Your task to perform on an android device: Search for the best rated headphones on Amazon Image 0: 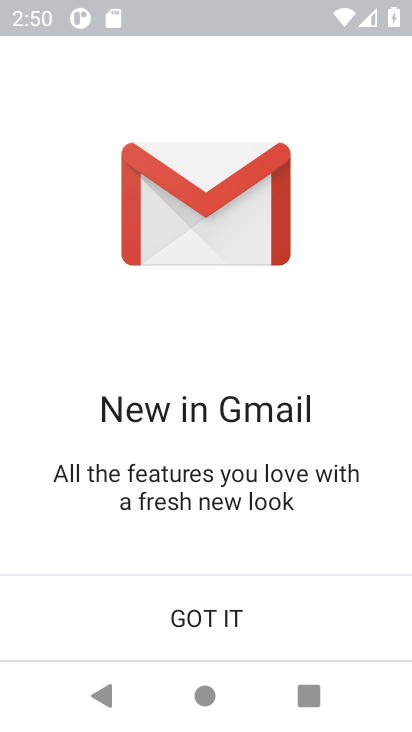
Step 0: press home button
Your task to perform on an android device: Search for the best rated headphones on Amazon Image 1: 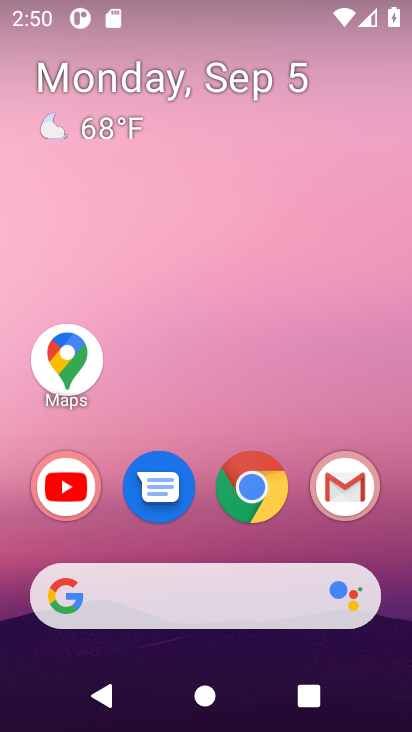
Step 1: click (236, 508)
Your task to perform on an android device: Search for the best rated headphones on Amazon Image 2: 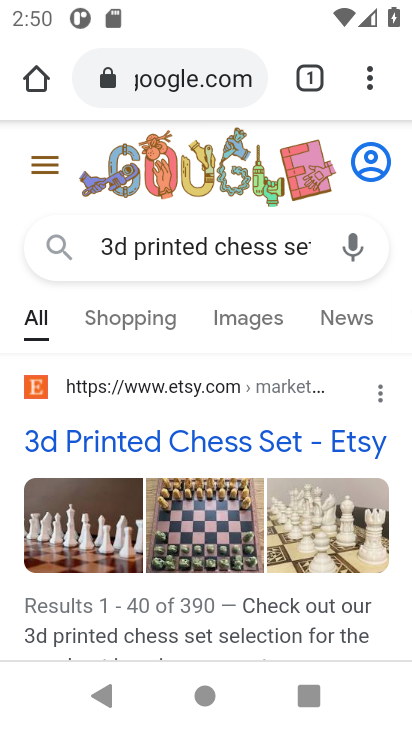
Step 2: click (171, 53)
Your task to perform on an android device: Search for the best rated headphones on Amazon Image 3: 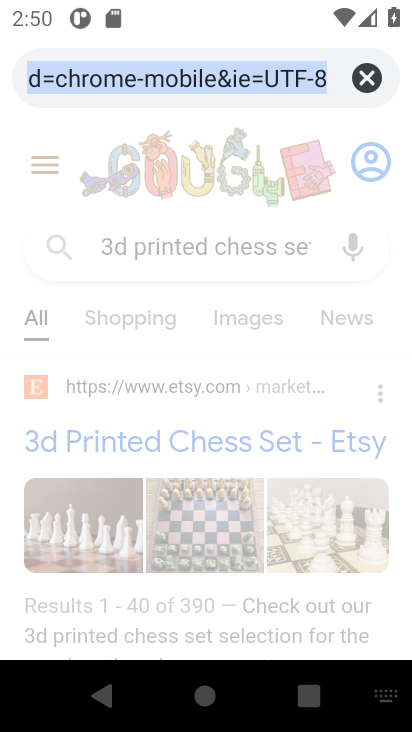
Step 3: click (373, 87)
Your task to perform on an android device: Search for the best rated headphones on Amazon Image 4: 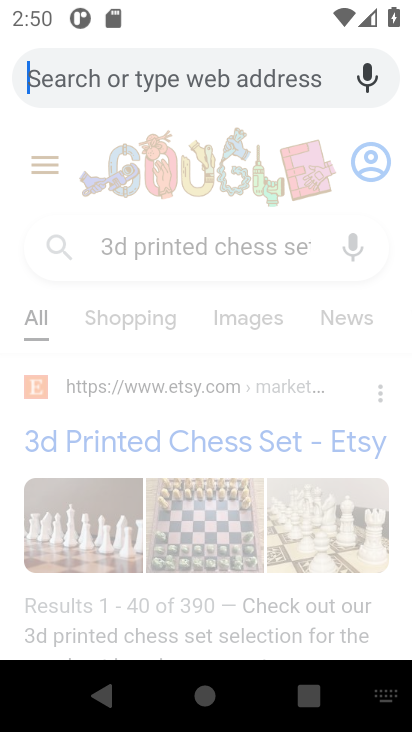
Step 4: type "the best rated headphones on Amazon"
Your task to perform on an android device: Search for the best rated headphones on Amazon Image 5: 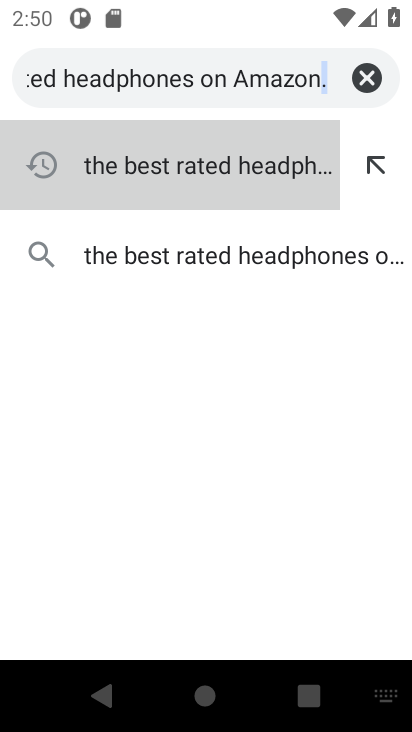
Step 5: click (222, 165)
Your task to perform on an android device: Search for the best rated headphones on Amazon Image 6: 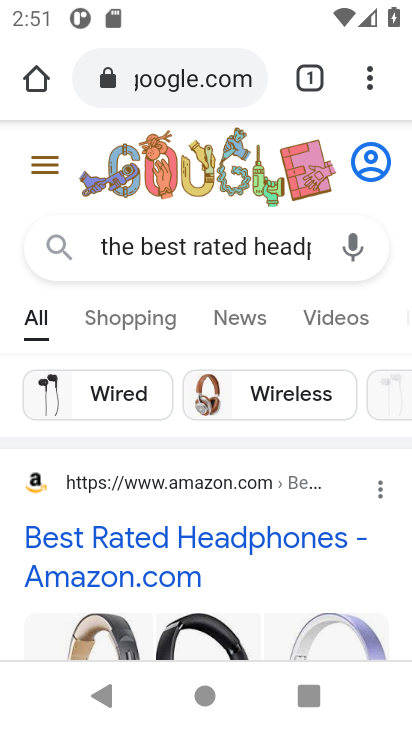
Step 6: task complete